Your task to perform on an android device: turn off improve location accuracy Image 0: 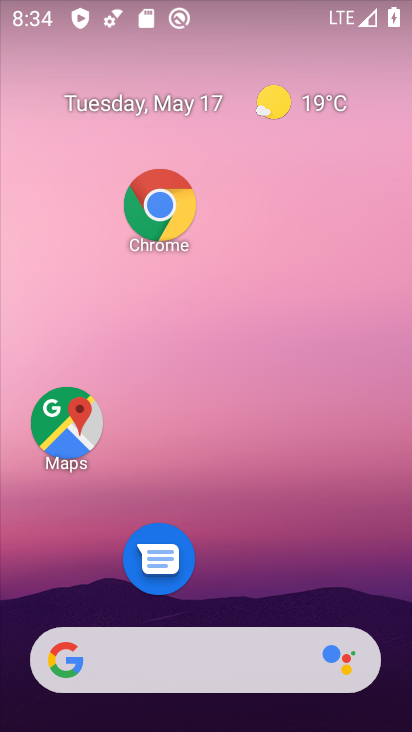
Step 0: drag from (228, 214) to (272, 51)
Your task to perform on an android device: turn off improve location accuracy Image 1: 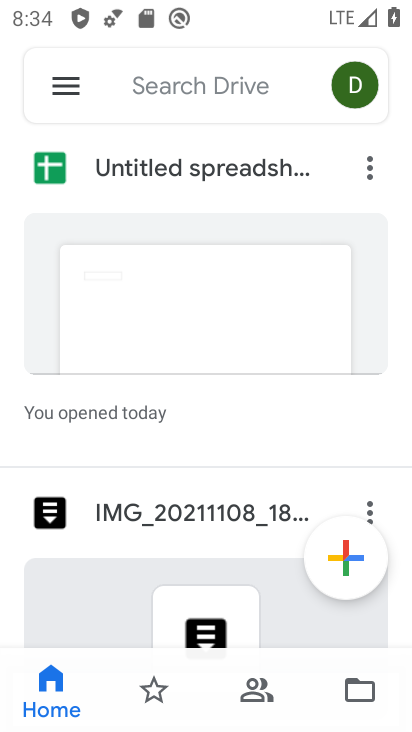
Step 1: press home button
Your task to perform on an android device: turn off improve location accuracy Image 2: 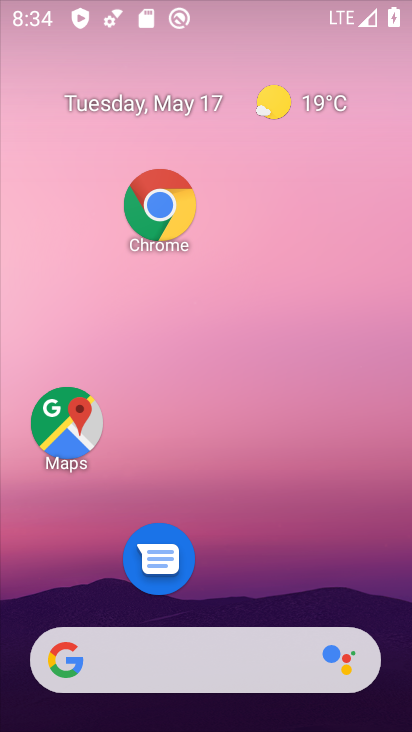
Step 2: drag from (165, 588) to (222, 34)
Your task to perform on an android device: turn off improve location accuracy Image 3: 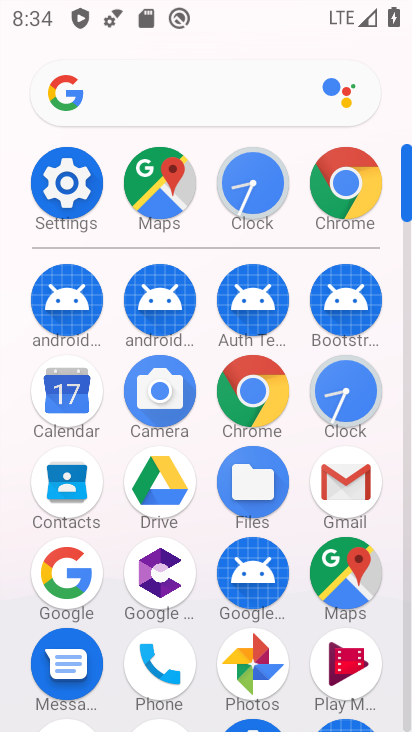
Step 3: click (54, 188)
Your task to perform on an android device: turn off improve location accuracy Image 4: 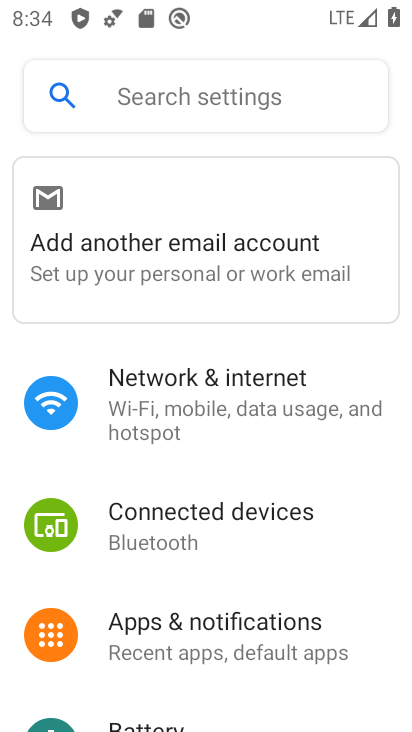
Step 4: drag from (168, 624) to (220, 88)
Your task to perform on an android device: turn off improve location accuracy Image 5: 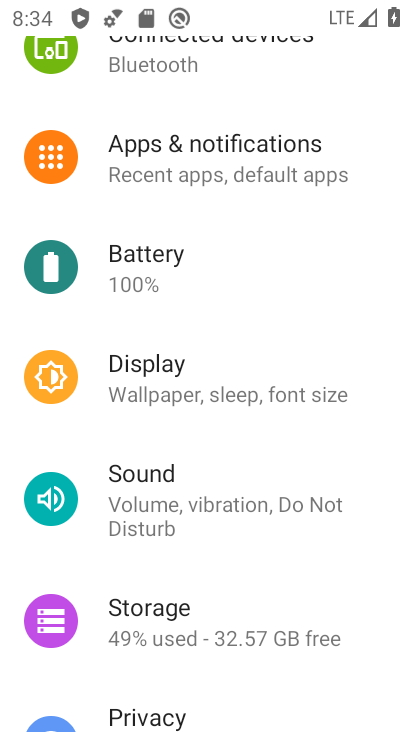
Step 5: drag from (213, 653) to (215, 167)
Your task to perform on an android device: turn off improve location accuracy Image 6: 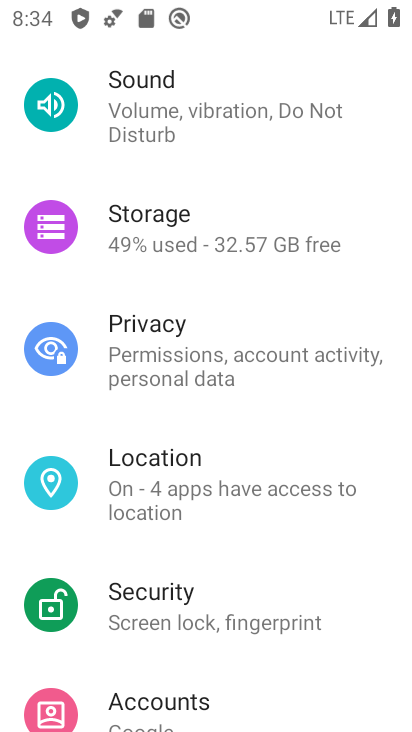
Step 6: click (204, 486)
Your task to perform on an android device: turn off improve location accuracy Image 7: 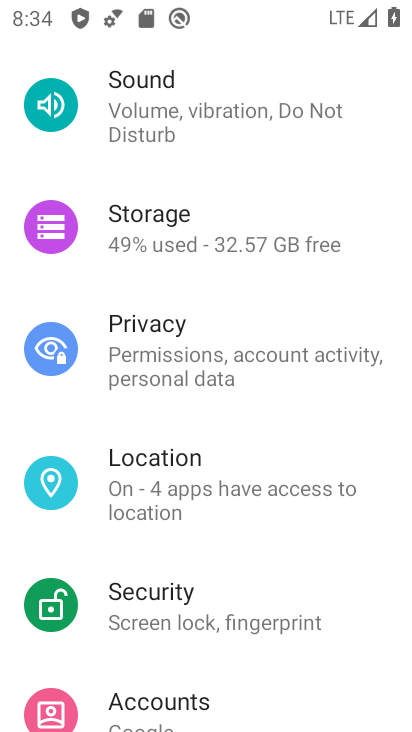
Step 7: click (204, 486)
Your task to perform on an android device: turn off improve location accuracy Image 8: 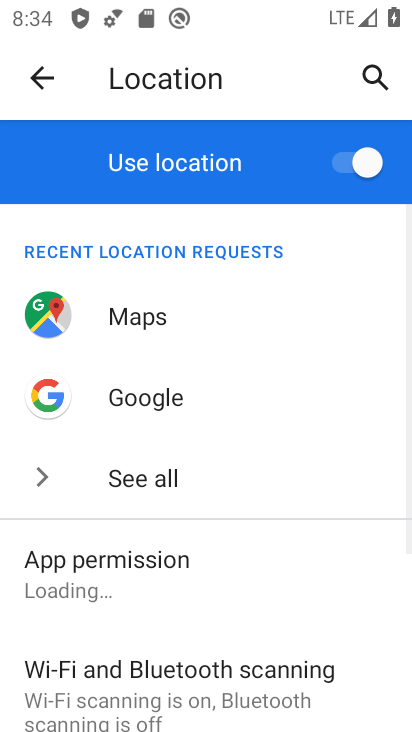
Step 8: drag from (183, 648) to (183, 231)
Your task to perform on an android device: turn off improve location accuracy Image 9: 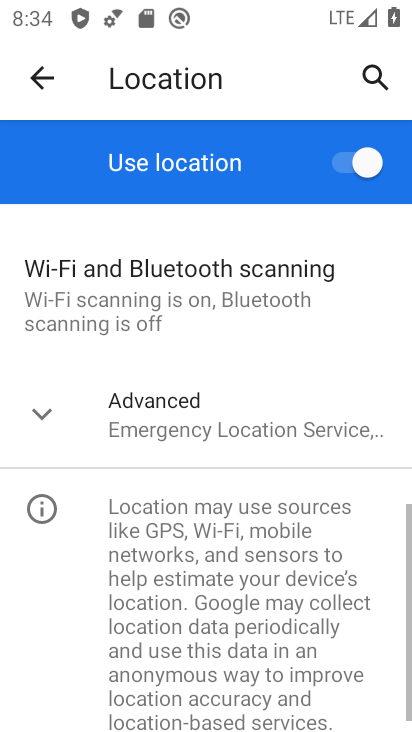
Step 9: click (137, 397)
Your task to perform on an android device: turn off improve location accuracy Image 10: 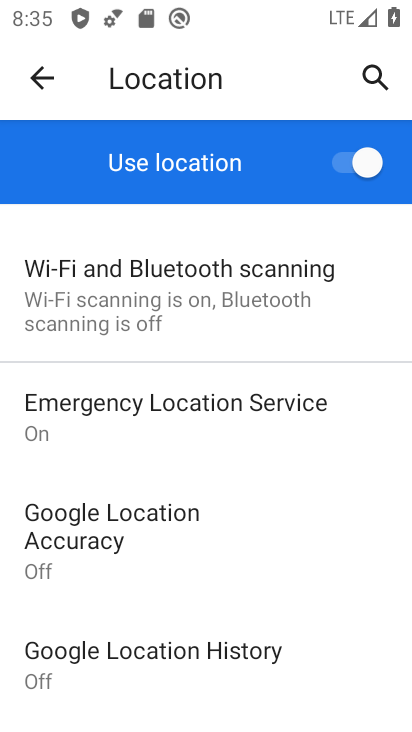
Step 10: click (167, 543)
Your task to perform on an android device: turn off improve location accuracy Image 11: 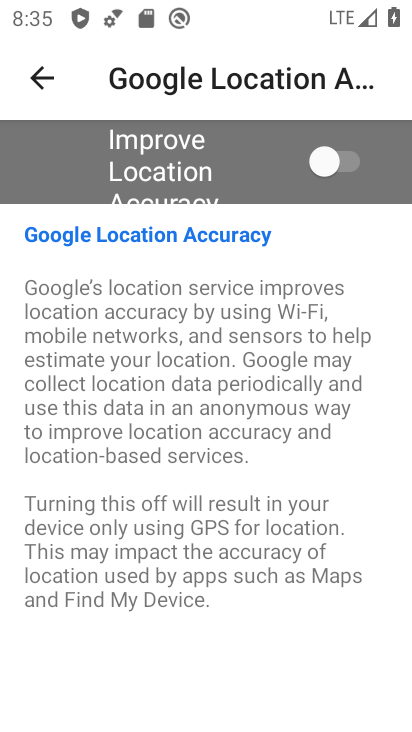
Step 11: click (182, 175)
Your task to perform on an android device: turn off improve location accuracy Image 12: 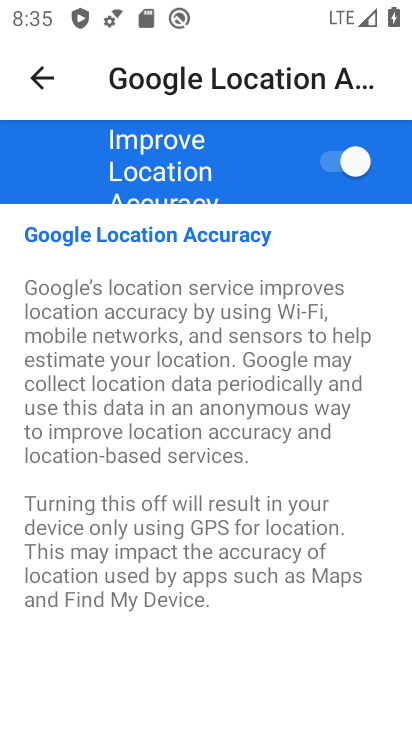
Step 12: click (182, 175)
Your task to perform on an android device: turn off improve location accuracy Image 13: 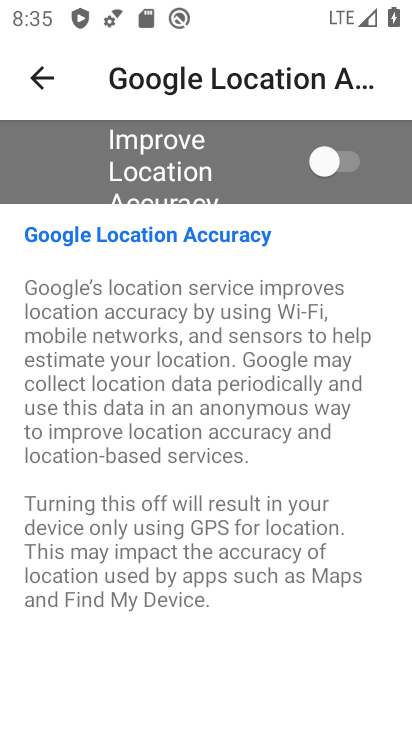
Step 13: task complete